Your task to perform on an android device: Open network settings Image 0: 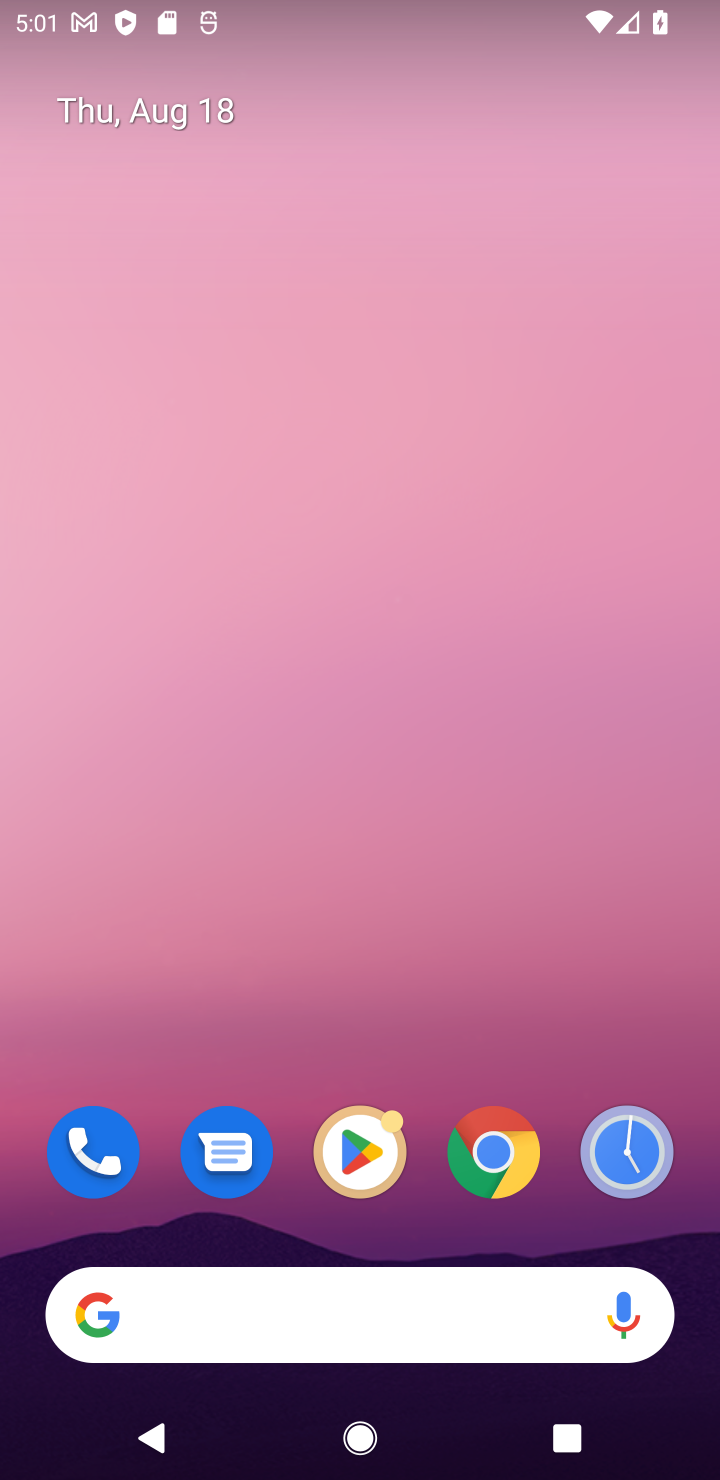
Step 0: drag from (296, 8) to (275, 917)
Your task to perform on an android device: Open network settings Image 1: 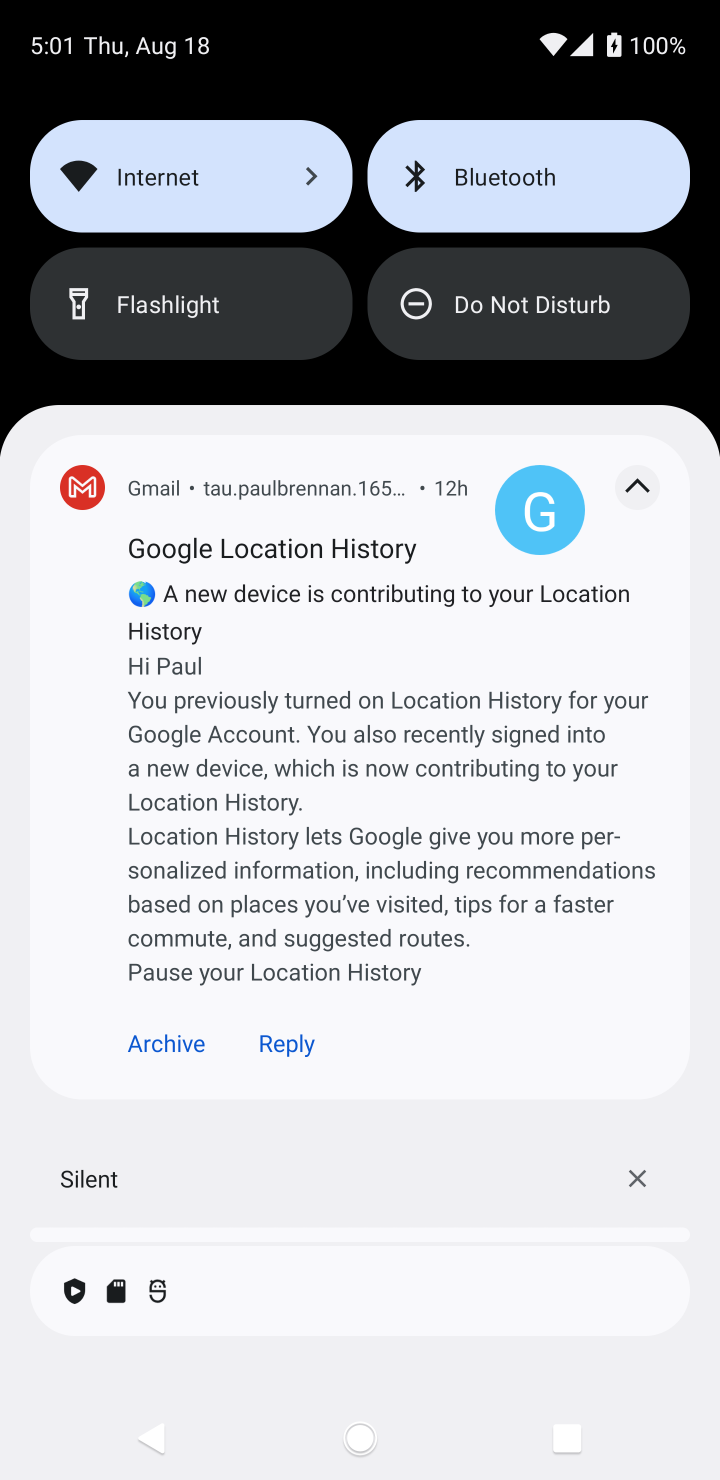
Step 1: click (246, 181)
Your task to perform on an android device: Open network settings Image 2: 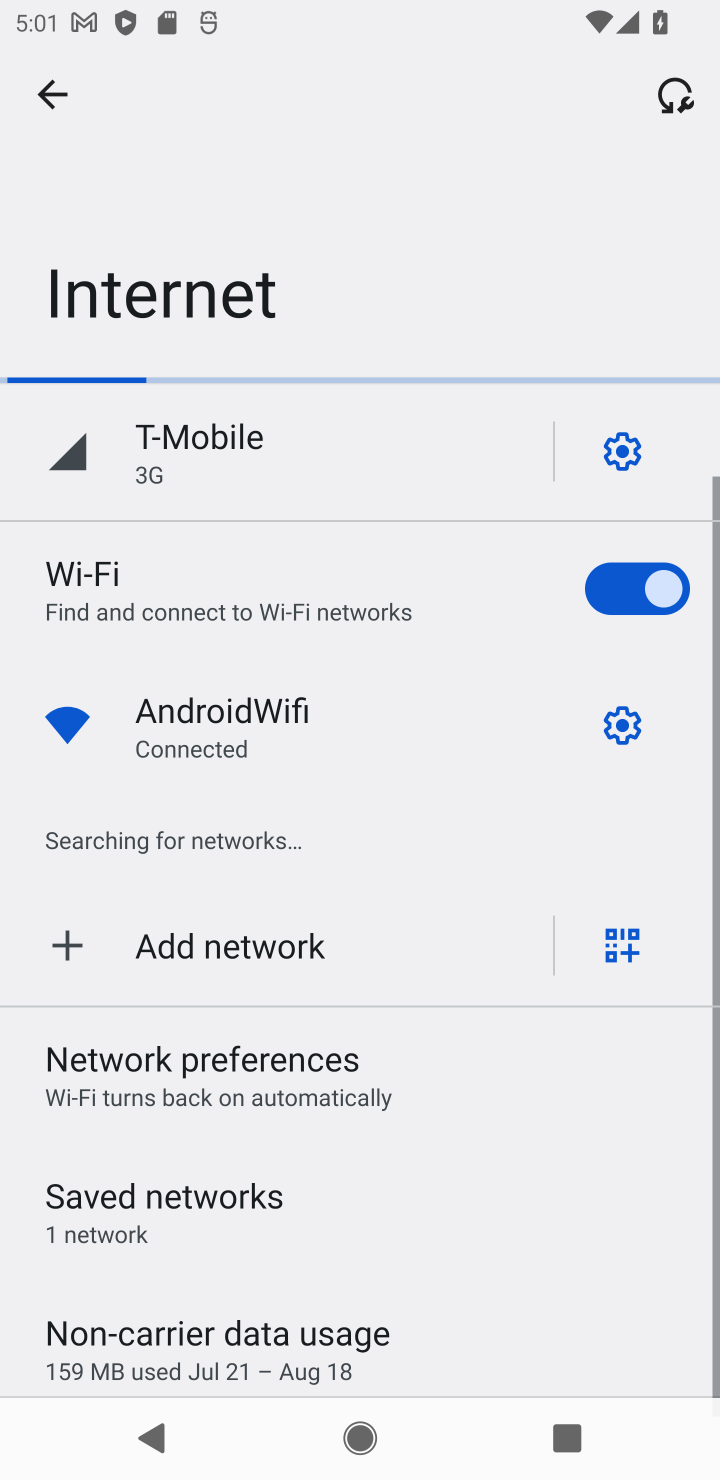
Step 2: task complete